Your task to perform on an android device: toggle notifications settings in the gmail app Image 0: 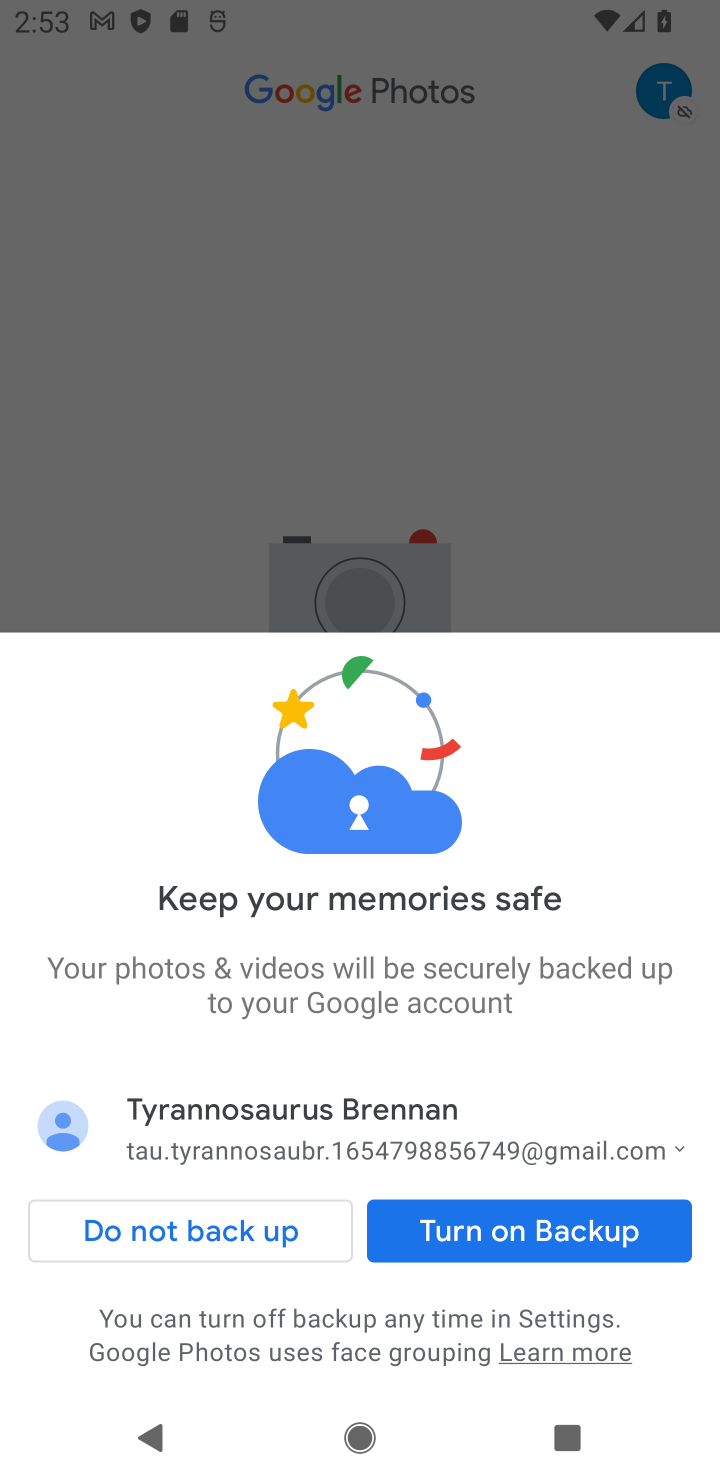
Step 0: press home button
Your task to perform on an android device: toggle notifications settings in the gmail app Image 1: 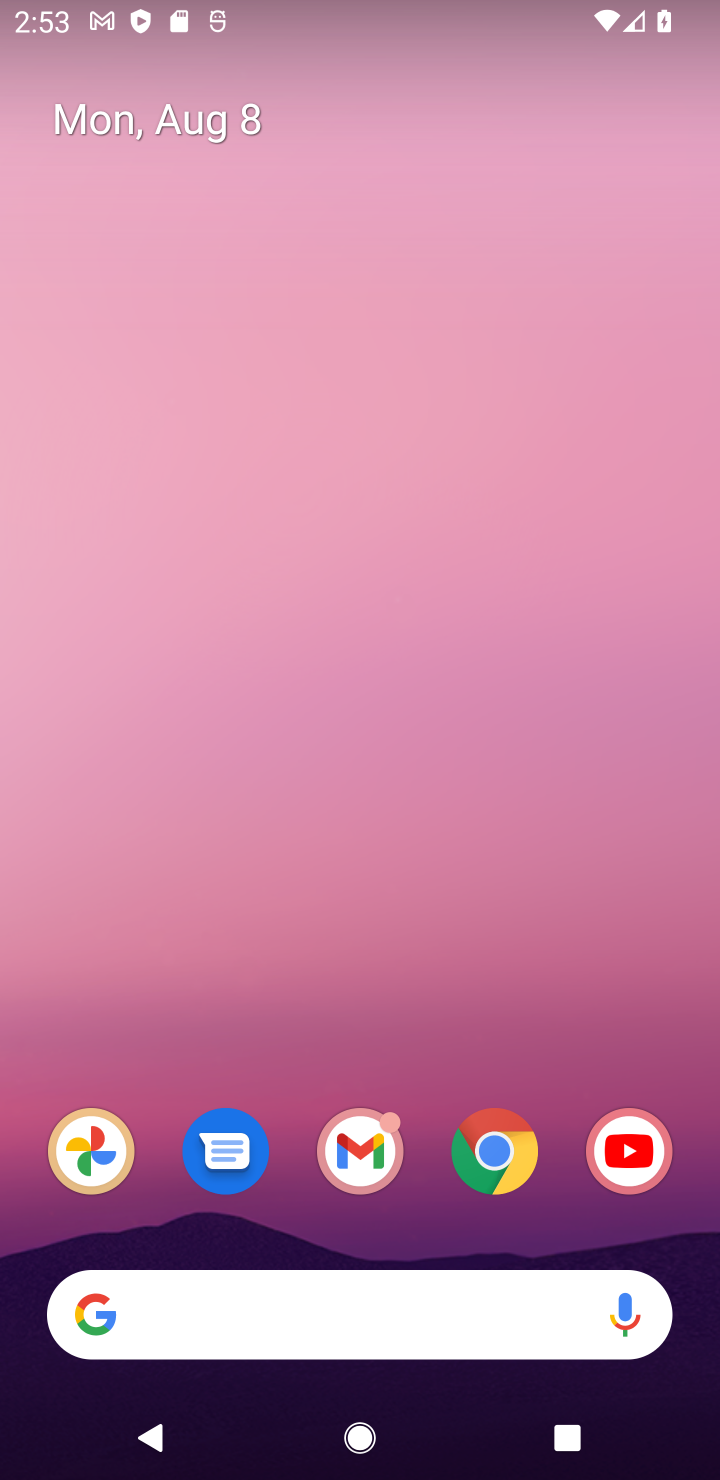
Step 1: click (349, 1125)
Your task to perform on an android device: toggle notifications settings in the gmail app Image 2: 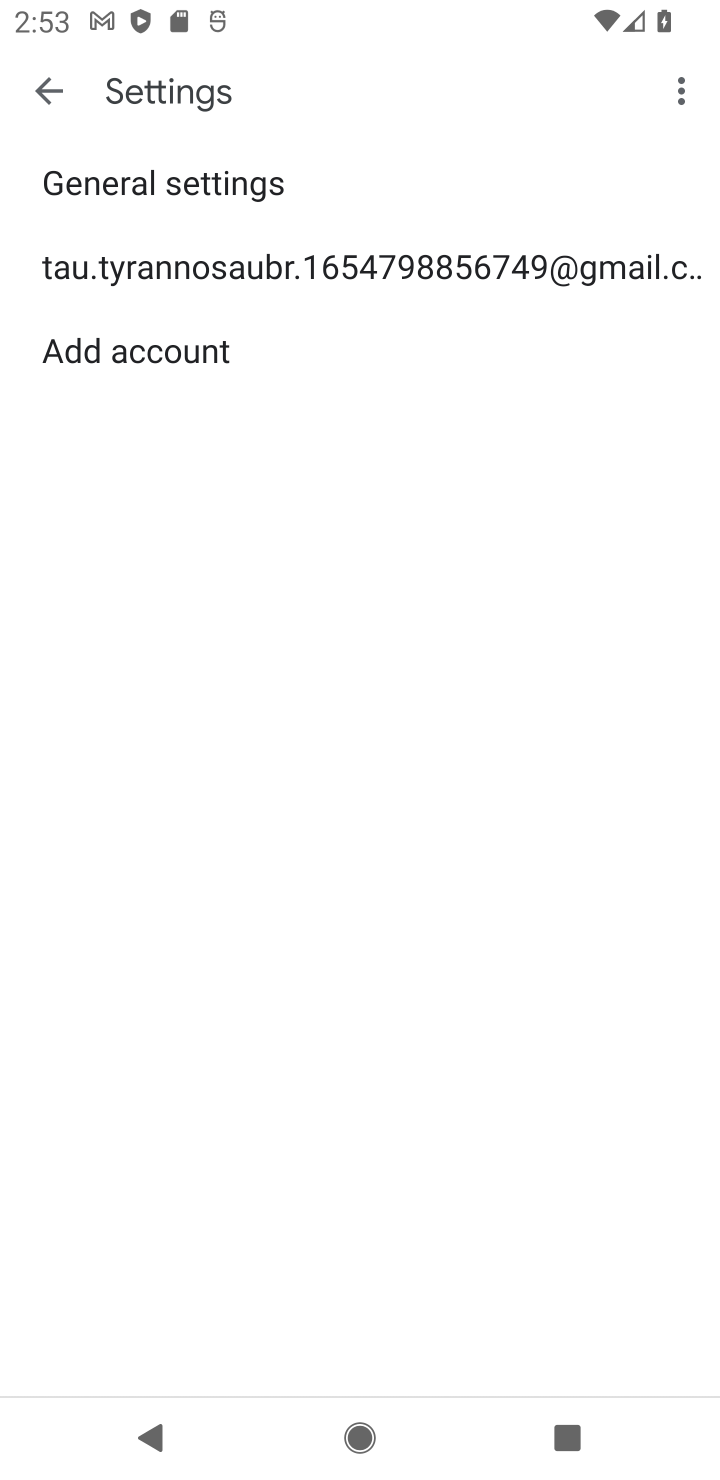
Step 2: click (295, 274)
Your task to perform on an android device: toggle notifications settings in the gmail app Image 3: 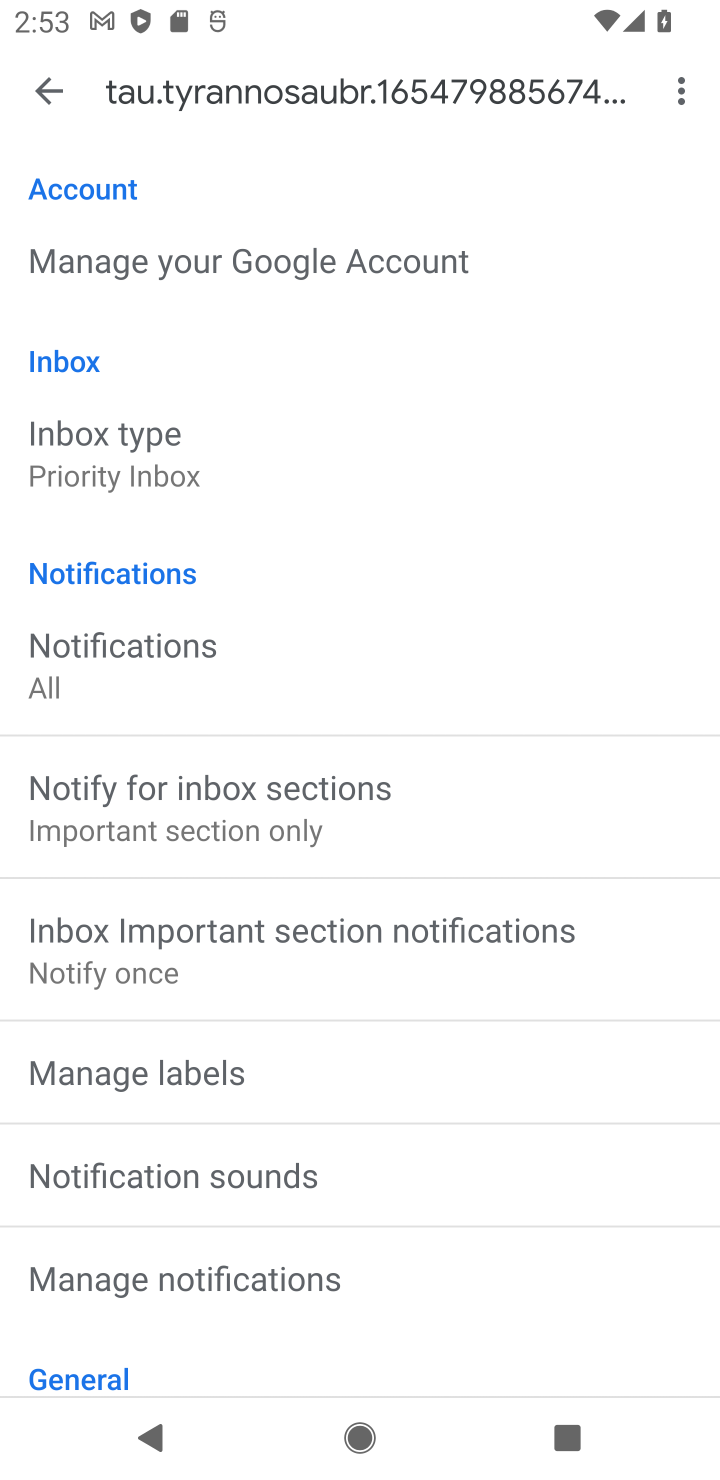
Step 3: click (316, 1253)
Your task to perform on an android device: toggle notifications settings in the gmail app Image 4: 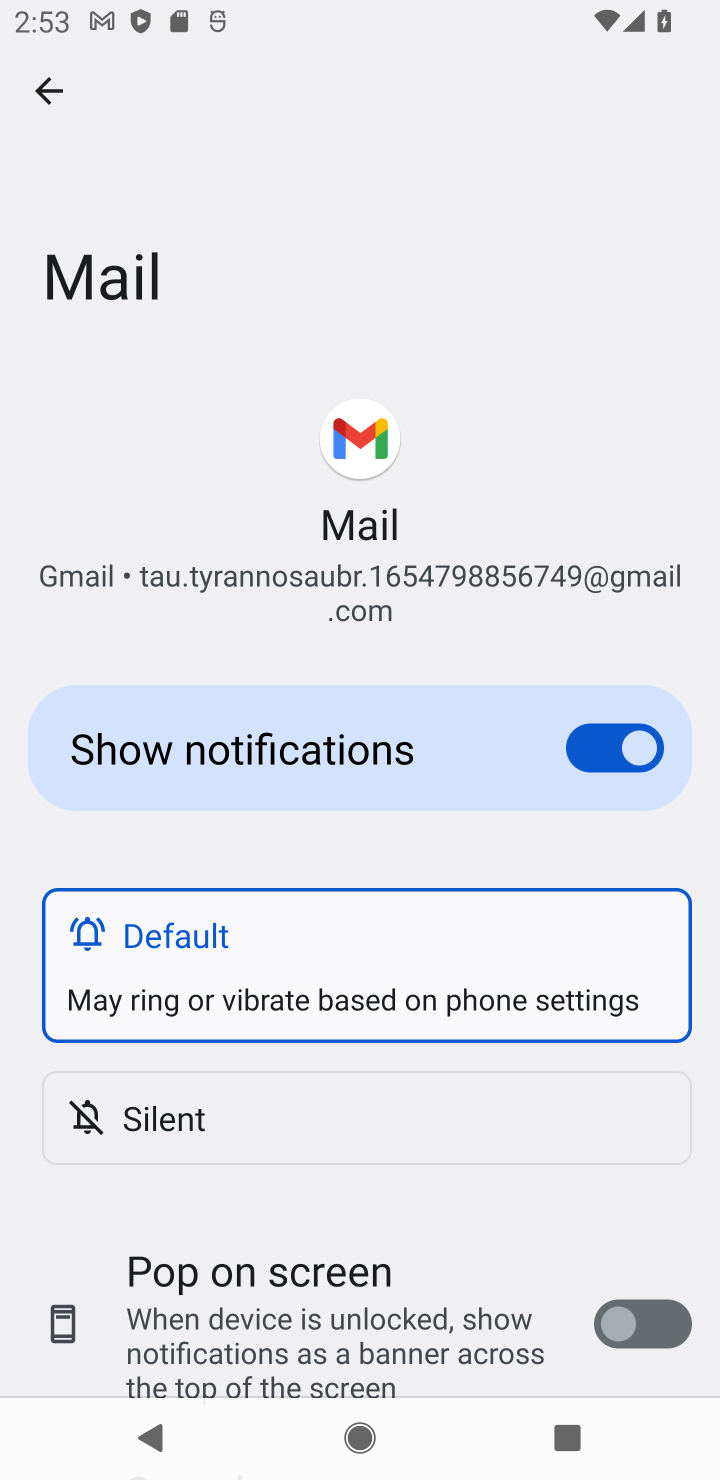
Step 4: click (572, 759)
Your task to perform on an android device: toggle notifications settings in the gmail app Image 5: 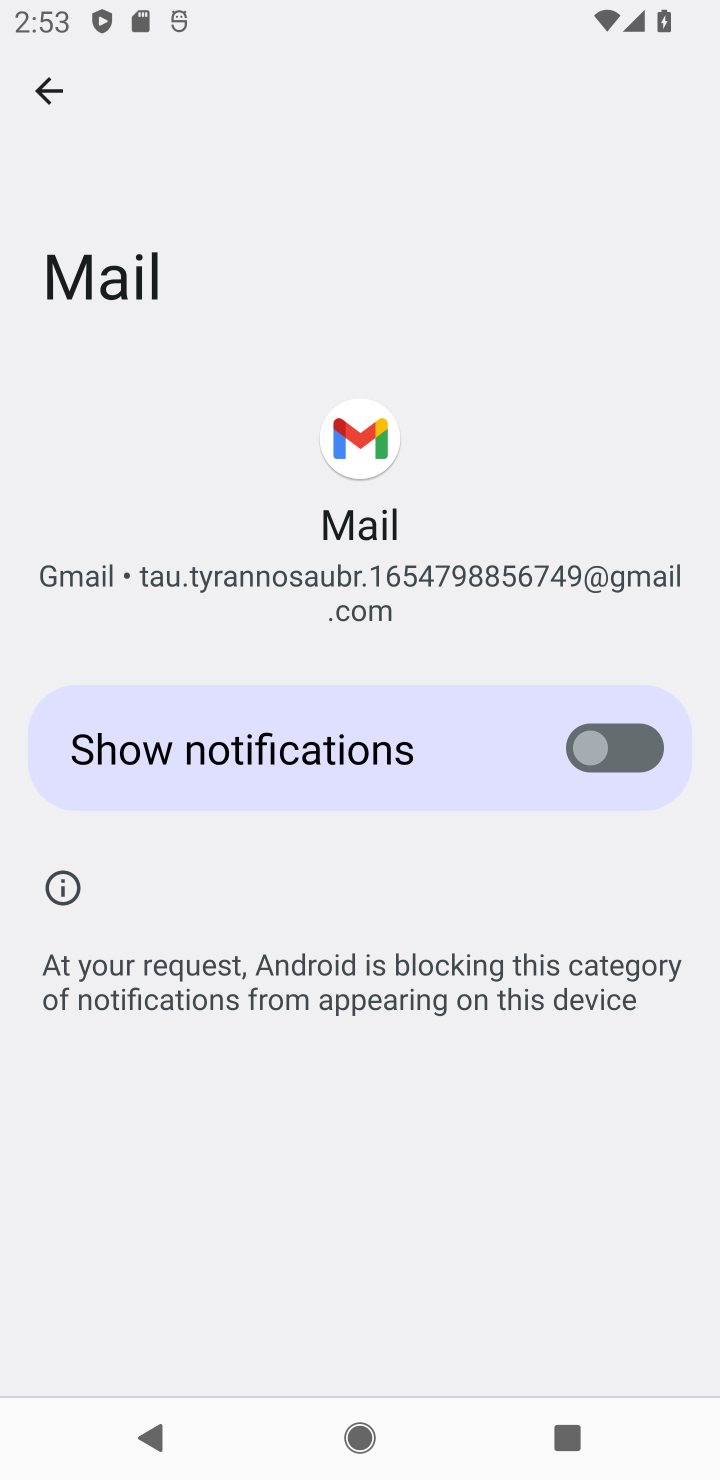
Step 5: task complete